Your task to perform on an android device: toggle wifi Image 0: 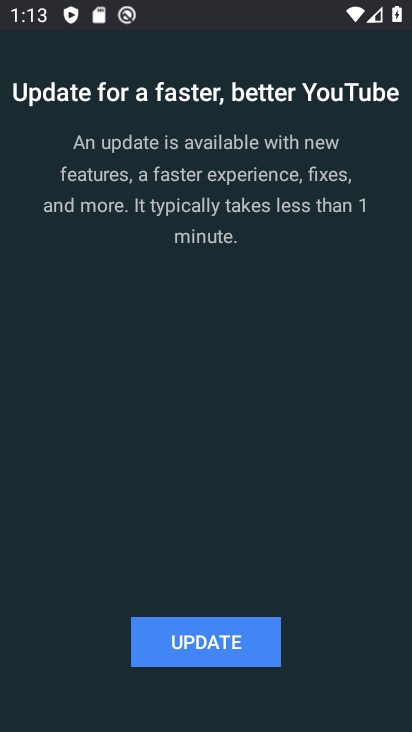
Step 0: drag from (325, 517) to (199, 14)
Your task to perform on an android device: toggle wifi Image 1: 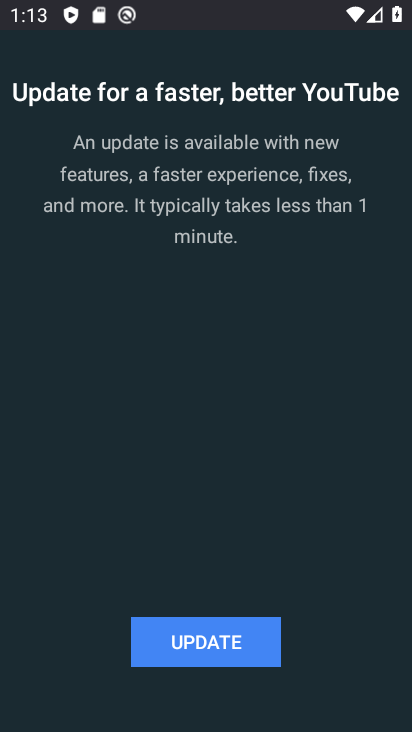
Step 1: press back button
Your task to perform on an android device: toggle wifi Image 2: 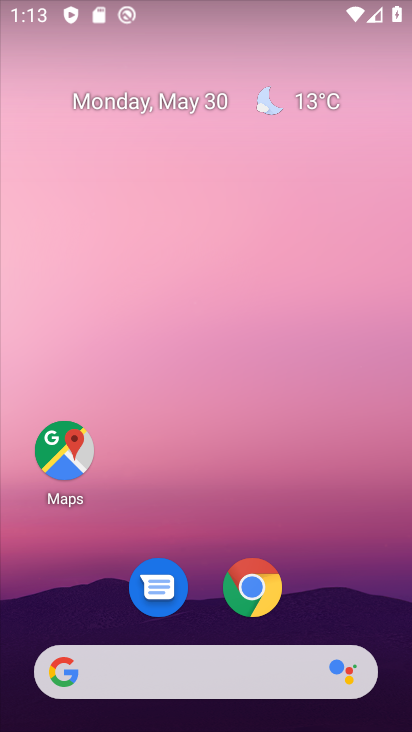
Step 2: drag from (327, 536) to (201, 0)
Your task to perform on an android device: toggle wifi Image 3: 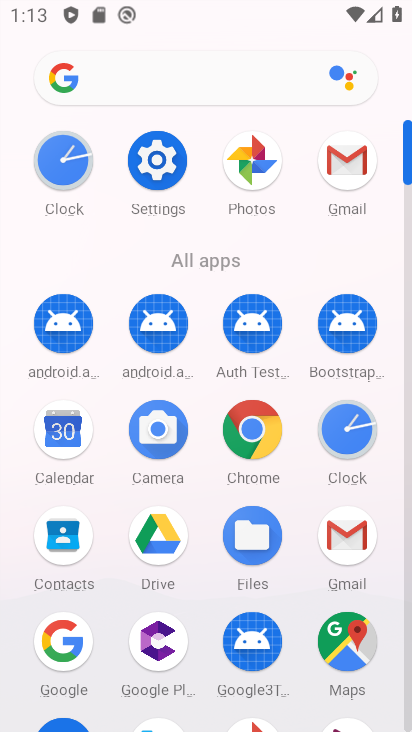
Step 3: click (173, 163)
Your task to perform on an android device: toggle wifi Image 4: 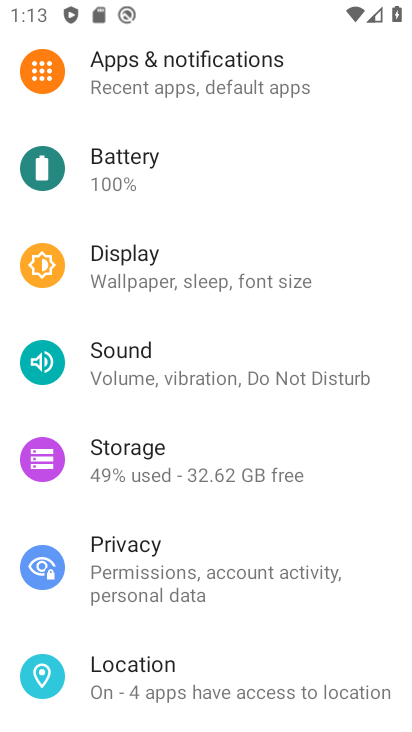
Step 4: drag from (232, 240) to (225, 623)
Your task to perform on an android device: toggle wifi Image 5: 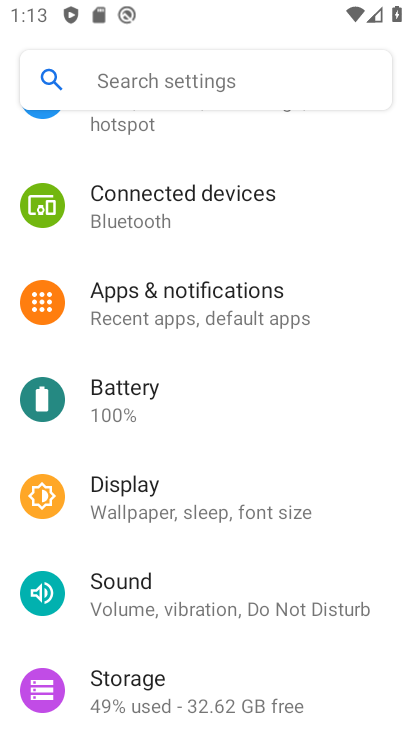
Step 5: drag from (211, 163) to (201, 652)
Your task to perform on an android device: toggle wifi Image 6: 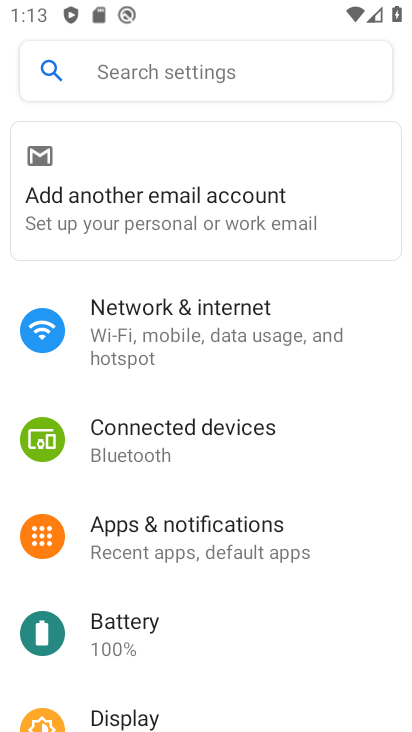
Step 6: click (159, 325)
Your task to perform on an android device: toggle wifi Image 7: 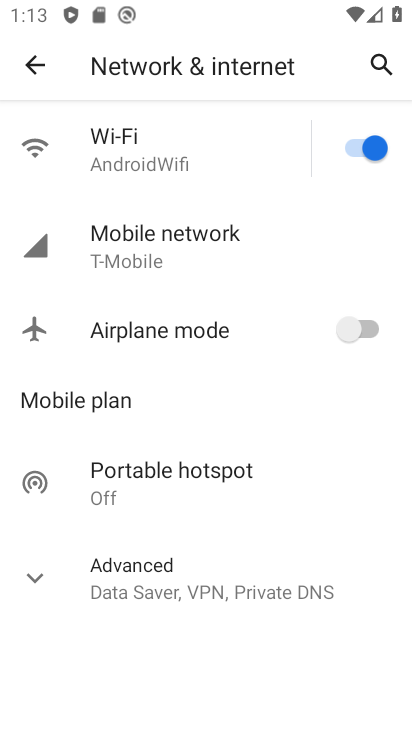
Step 7: click (192, 154)
Your task to perform on an android device: toggle wifi Image 8: 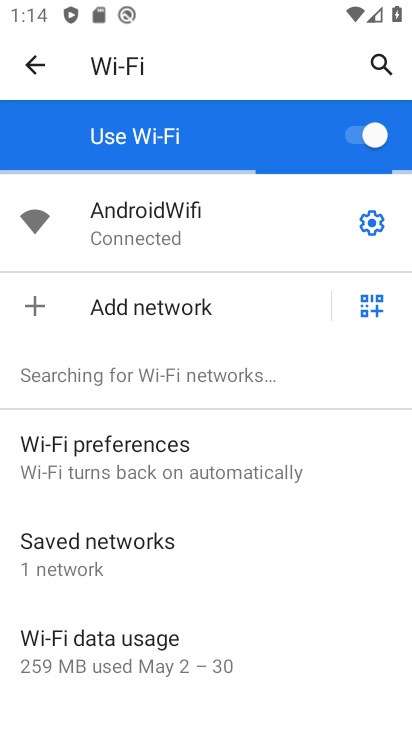
Step 8: click (363, 135)
Your task to perform on an android device: toggle wifi Image 9: 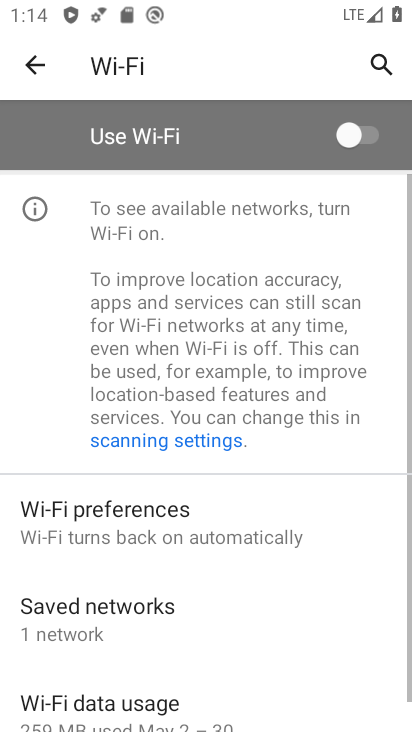
Step 9: task complete